Your task to perform on an android device: Open Android settings Image 0: 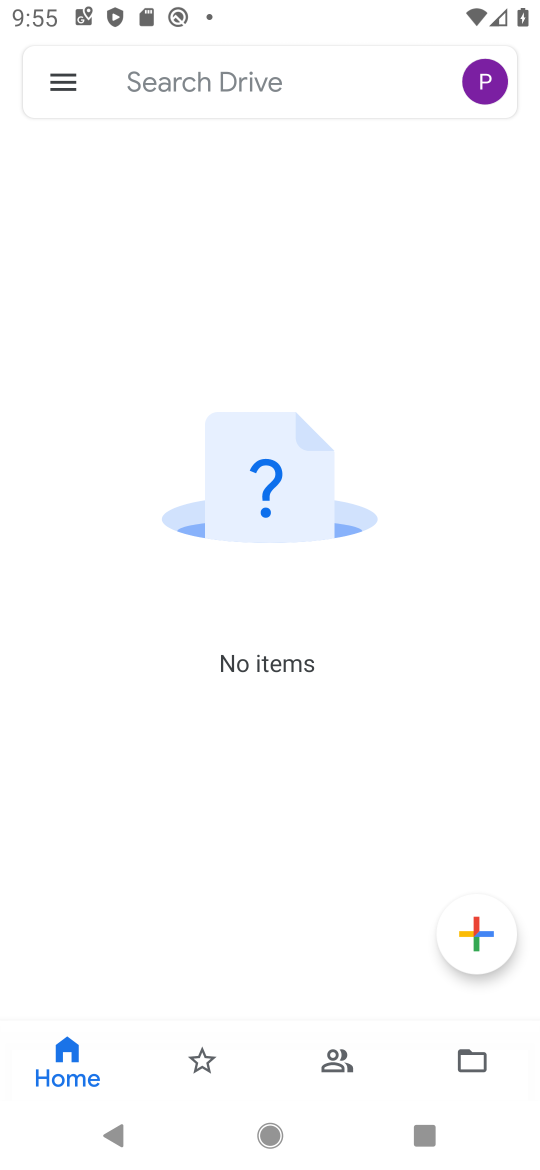
Step 0: press home button
Your task to perform on an android device: Open Android settings Image 1: 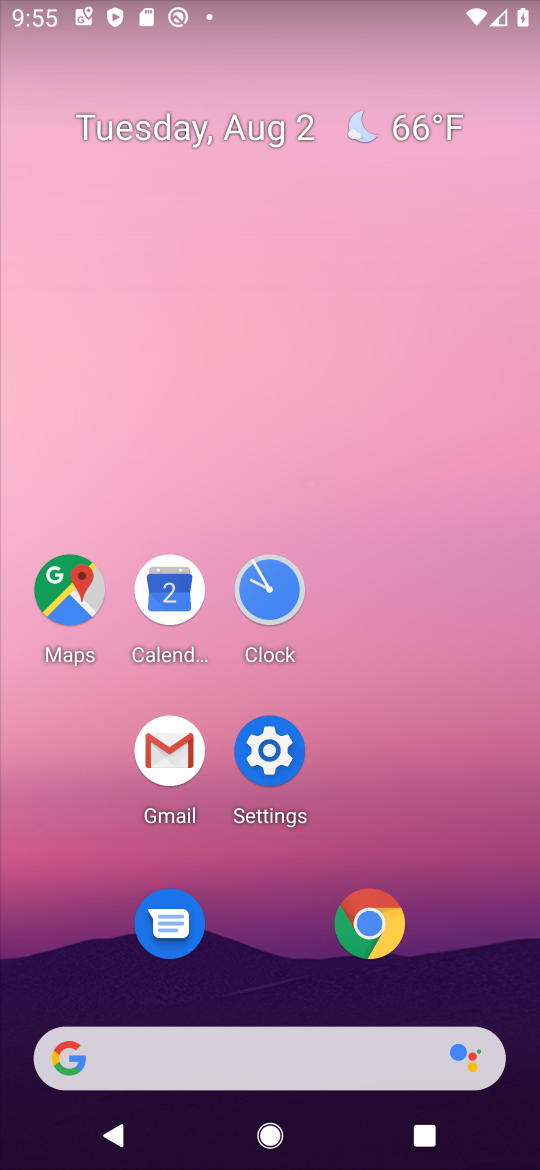
Step 1: click (267, 758)
Your task to perform on an android device: Open Android settings Image 2: 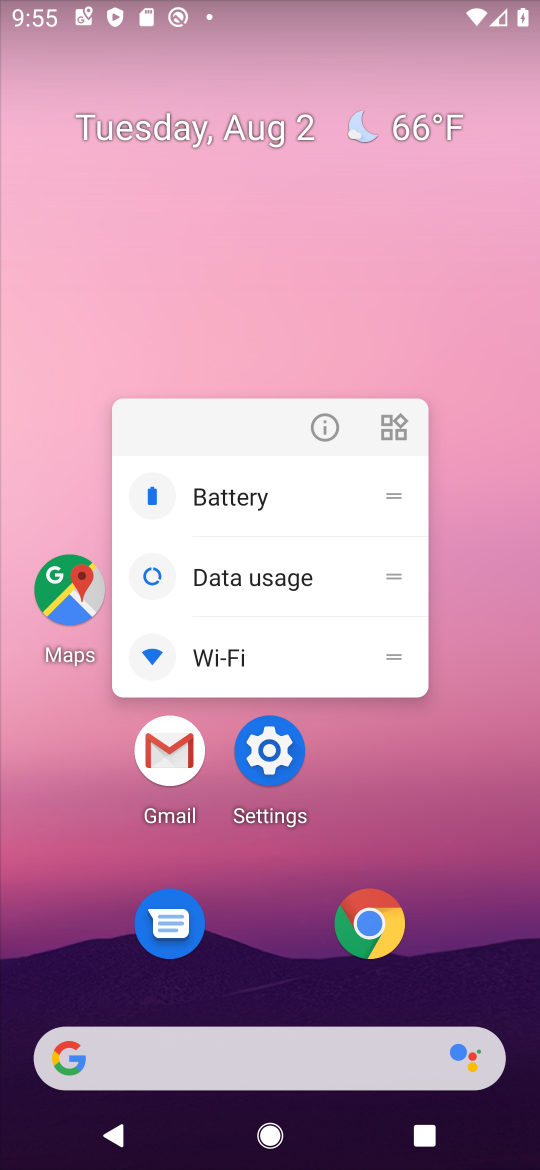
Step 2: click (254, 797)
Your task to perform on an android device: Open Android settings Image 3: 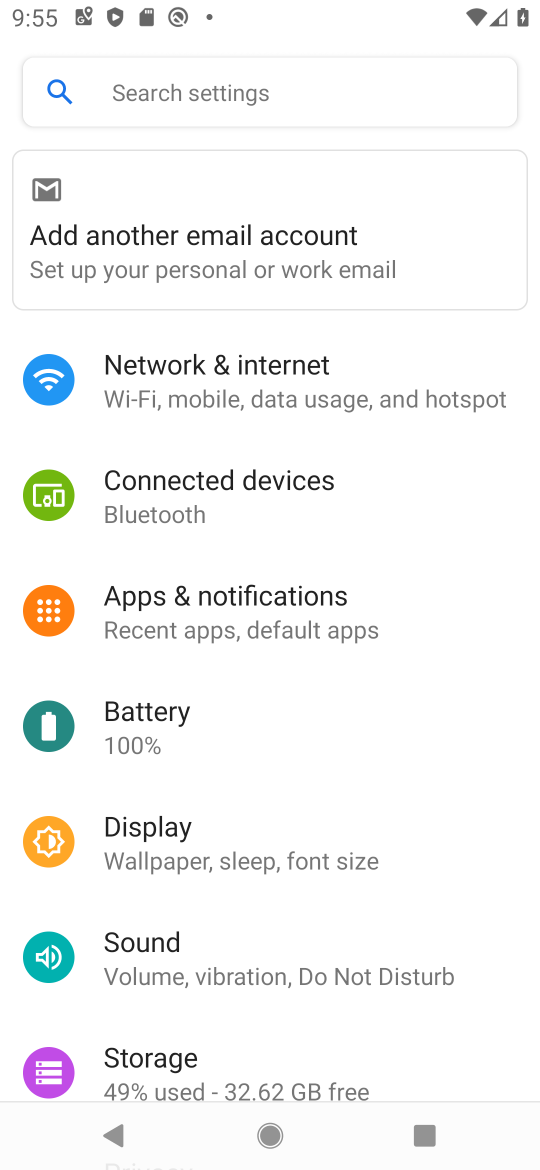
Step 3: task complete